Your task to perform on an android device: turn off smart reply in the gmail app Image 0: 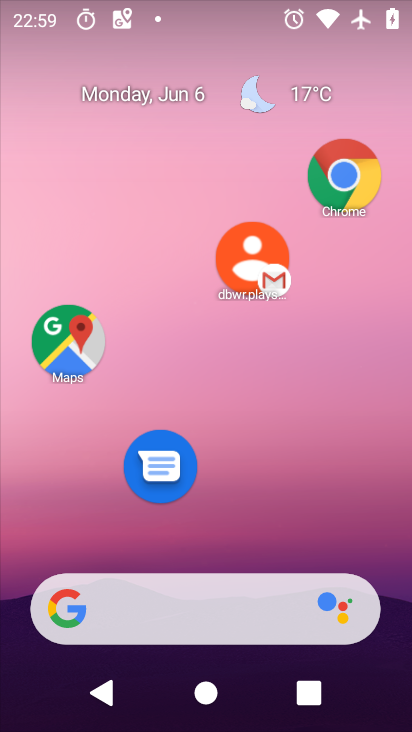
Step 0: drag from (217, 545) to (344, 22)
Your task to perform on an android device: turn off smart reply in the gmail app Image 1: 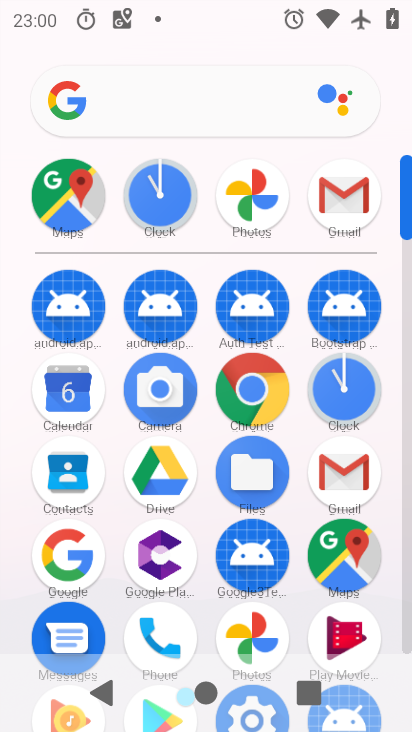
Step 1: drag from (199, 621) to (16, 239)
Your task to perform on an android device: turn off smart reply in the gmail app Image 2: 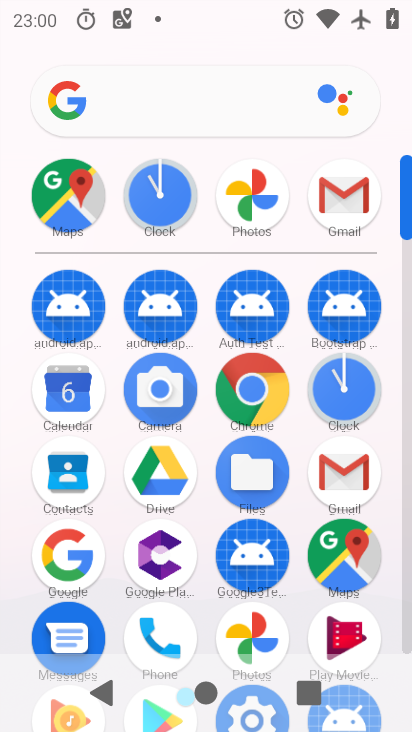
Step 2: click (331, 213)
Your task to perform on an android device: turn off smart reply in the gmail app Image 3: 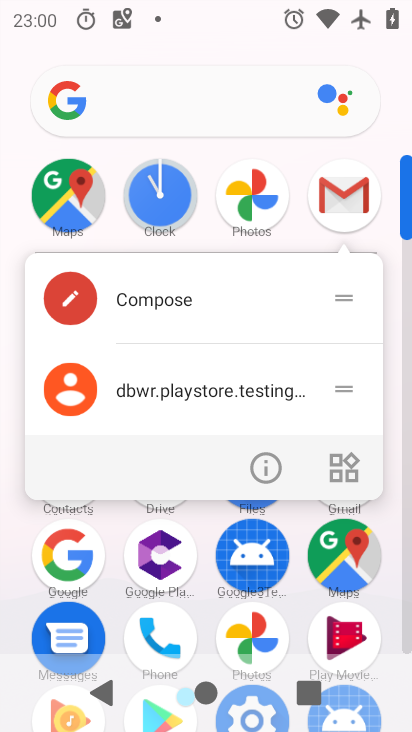
Step 3: click (278, 465)
Your task to perform on an android device: turn off smart reply in the gmail app Image 4: 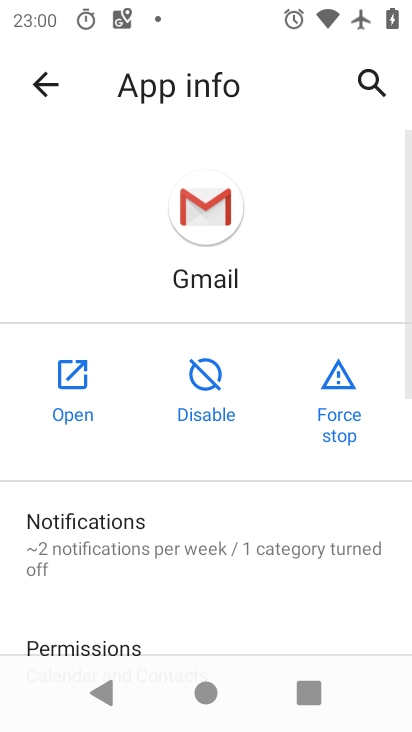
Step 4: click (68, 348)
Your task to perform on an android device: turn off smart reply in the gmail app Image 5: 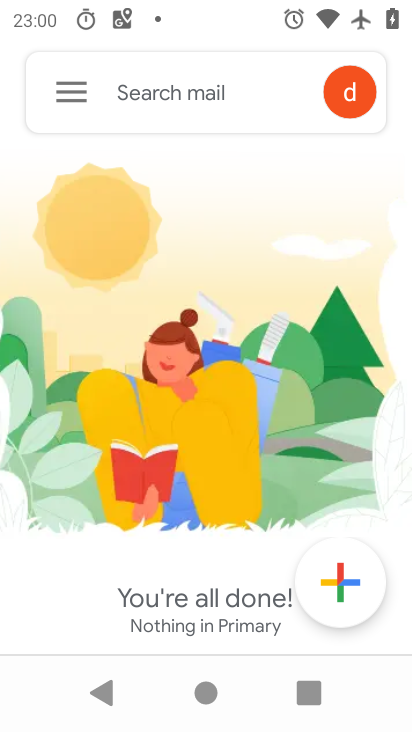
Step 5: click (49, 82)
Your task to perform on an android device: turn off smart reply in the gmail app Image 6: 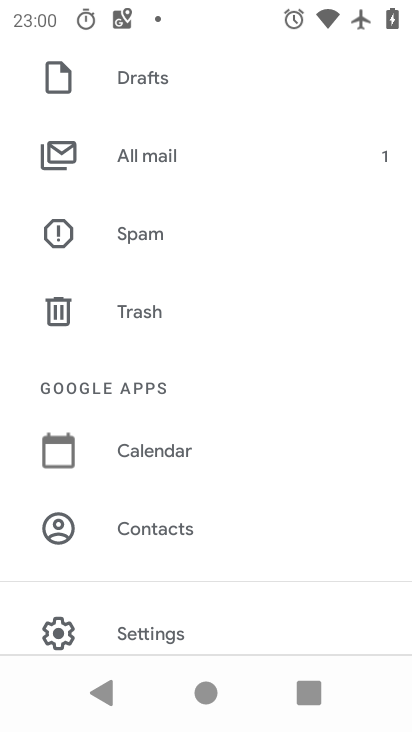
Step 6: drag from (157, 625) to (265, 153)
Your task to perform on an android device: turn off smart reply in the gmail app Image 7: 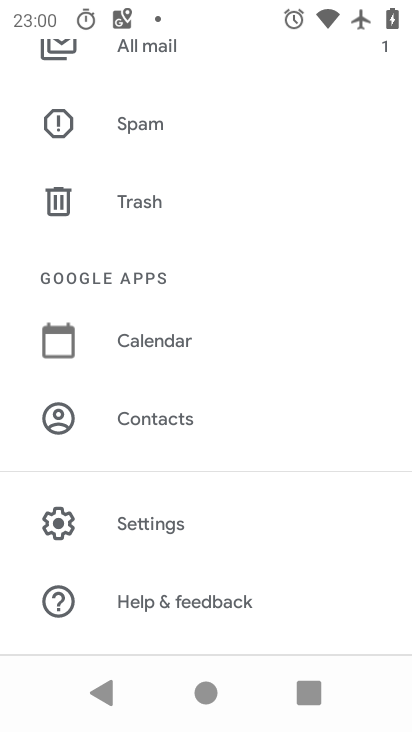
Step 7: click (141, 524)
Your task to perform on an android device: turn off smart reply in the gmail app Image 8: 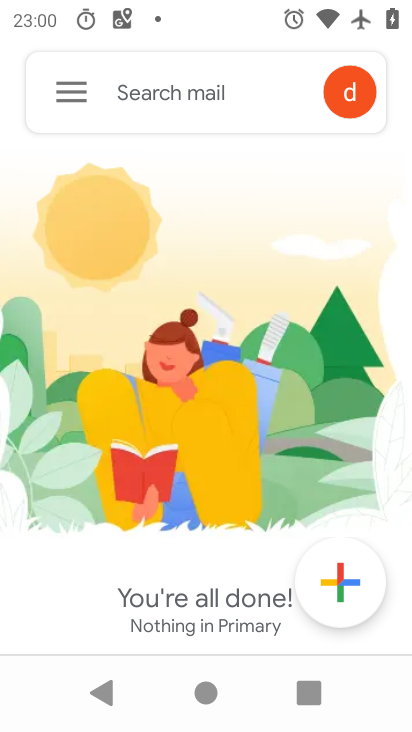
Step 8: drag from (155, 455) to (273, 52)
Your task to perform on an android device: turn off smart reply in the gmail app Image 9: 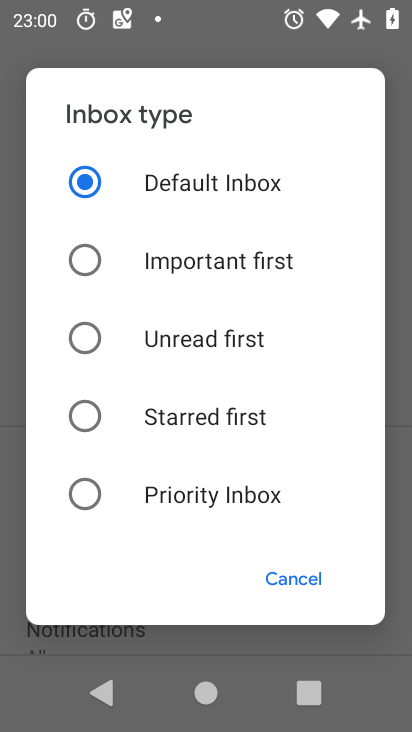
Step 9: click (308, 577)
Your task to perform on an android device: turn off smart reply in the gmail app Image 10: 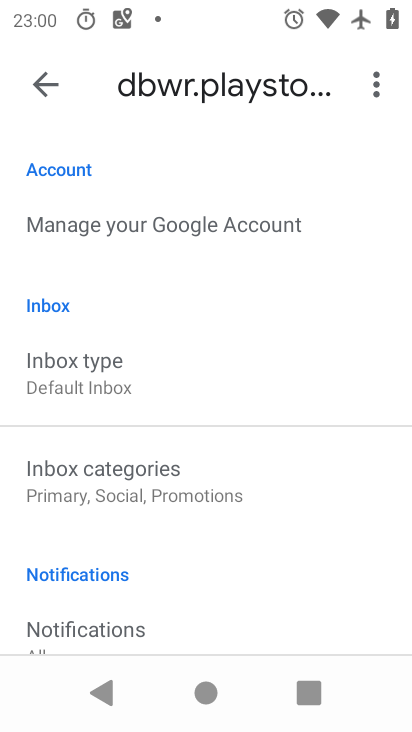
Step 10: task complete